Your task to perform on an android device: open device folders in google photos Image 0: 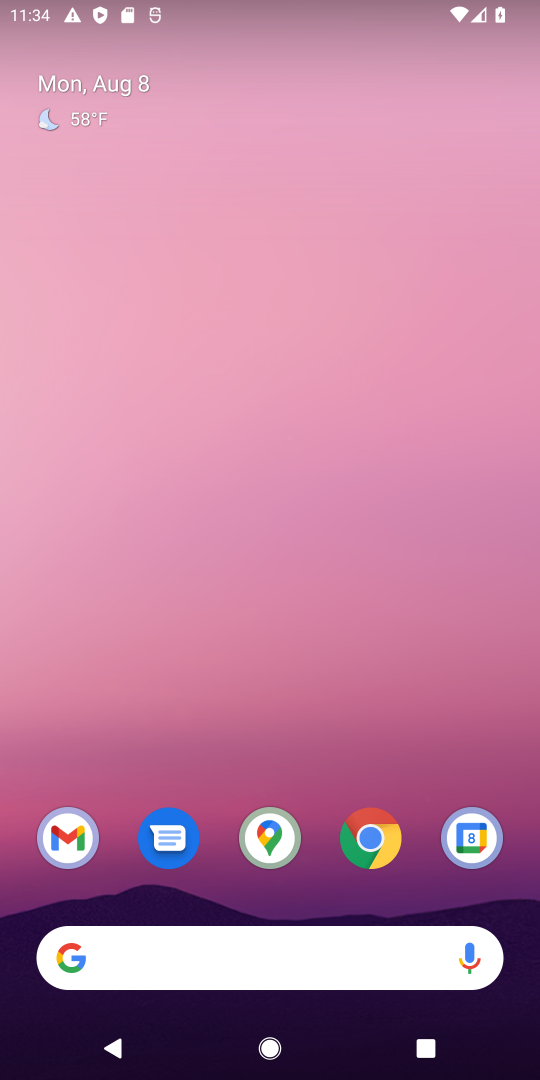
Step 0: press home button
Your task to perform on an android device: open device folders in google photos Image 1: 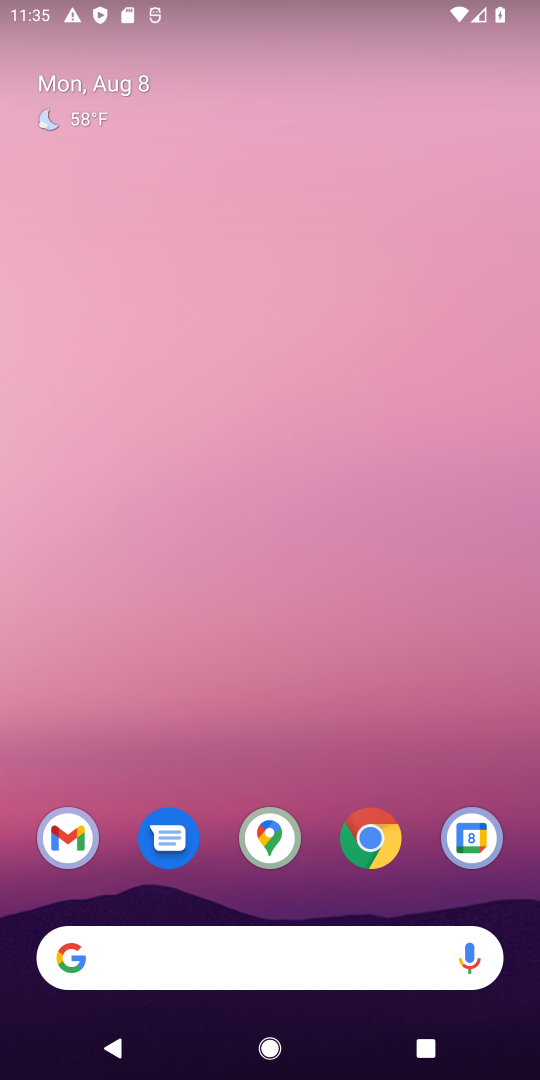
Step 1: drag from (204, 911) to (229, 168)
Your task to perform on an android device: open device folders in google photos Image 2: 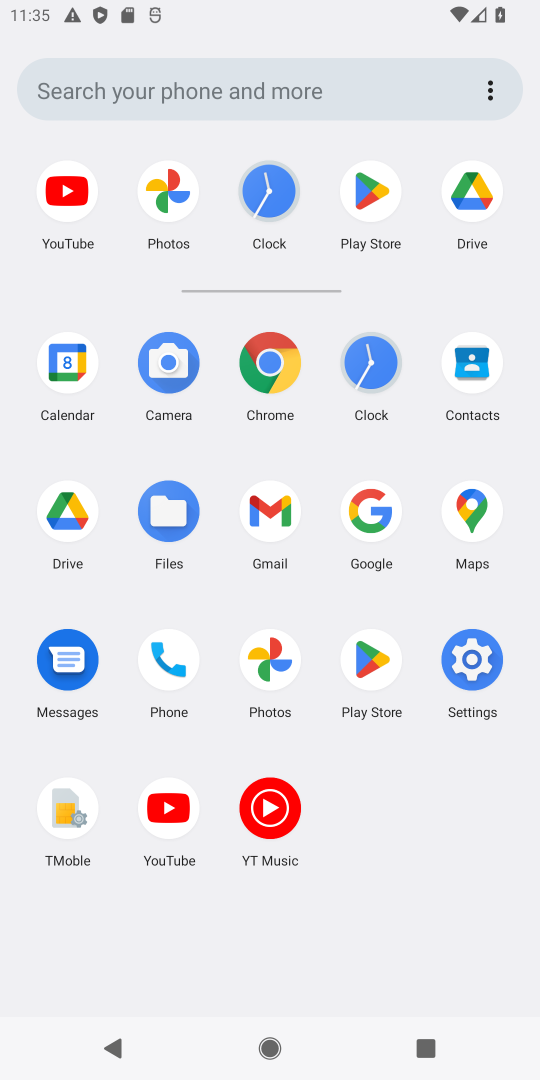
Step 2: click (167, 191)
Your task to perform on an android device: open device folders in google photos Image 3: 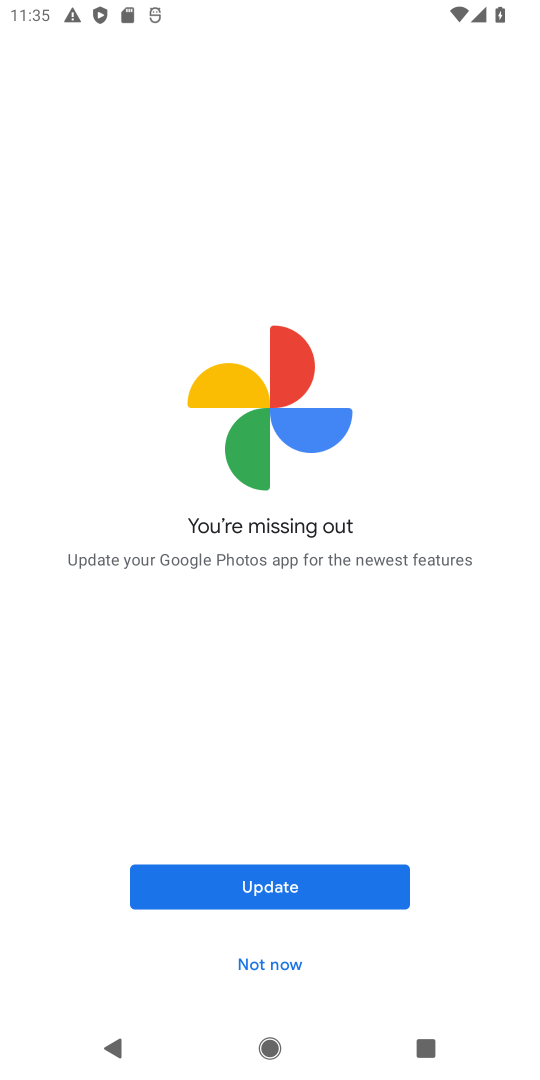
Step 3: click (202, 899)
Your task to perform on an android device: open device folders in google photos Image 4: 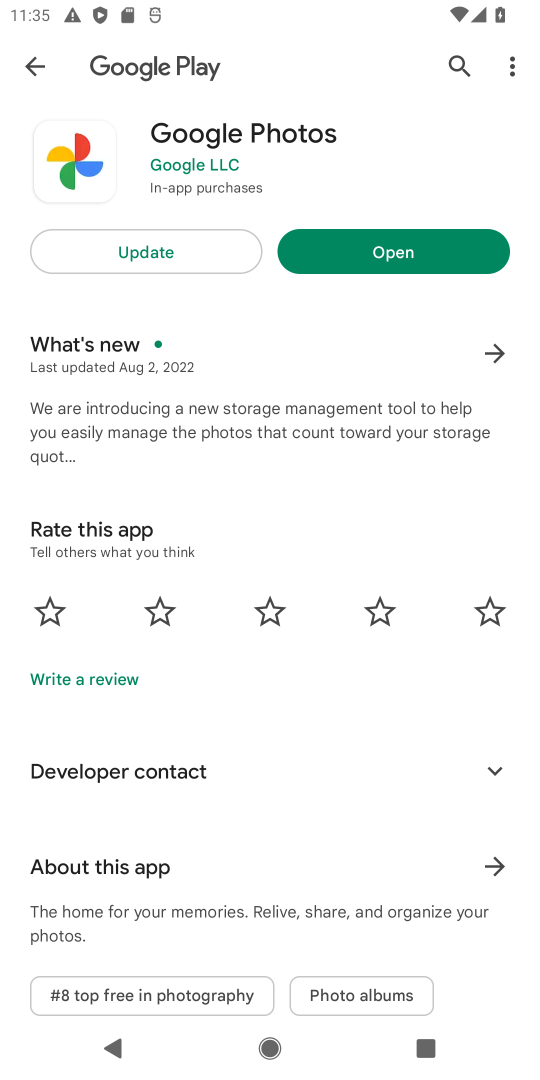
Step 4: click (181, 249)
Your task to perform on an android device: open device folders in google photos Image 5: 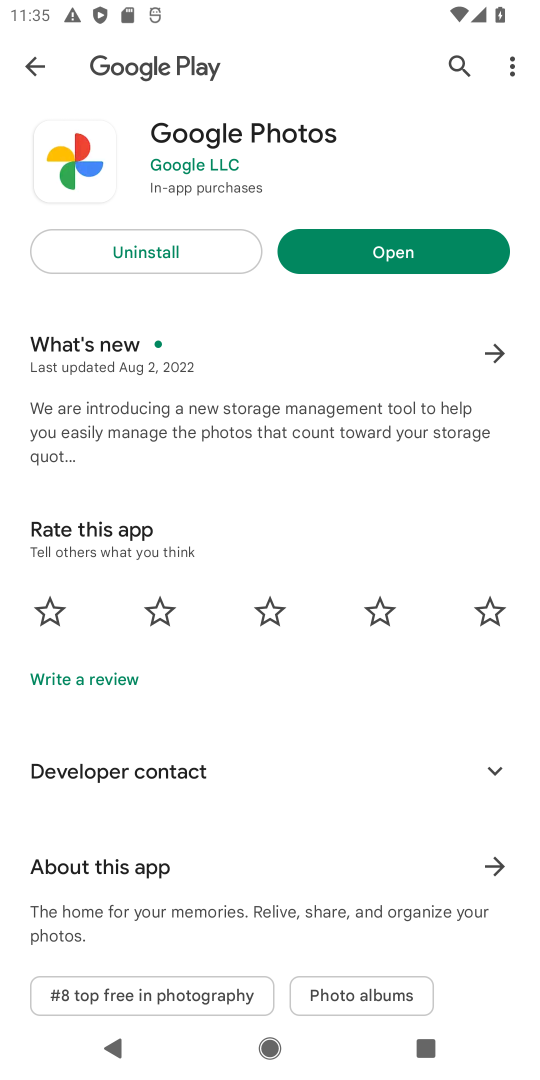
Step 5: click (315, 257)
Your task to perform on an android device: open device folders in google photos Image 6: 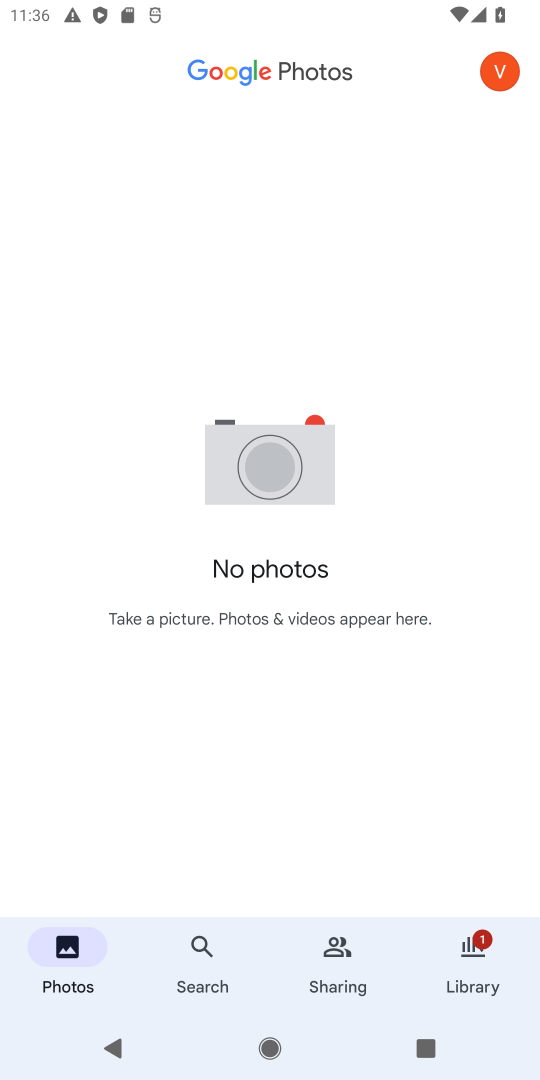
Step 6: click (189, 948)
Your task to perform on an android device: open device folders in google photos Image 7: 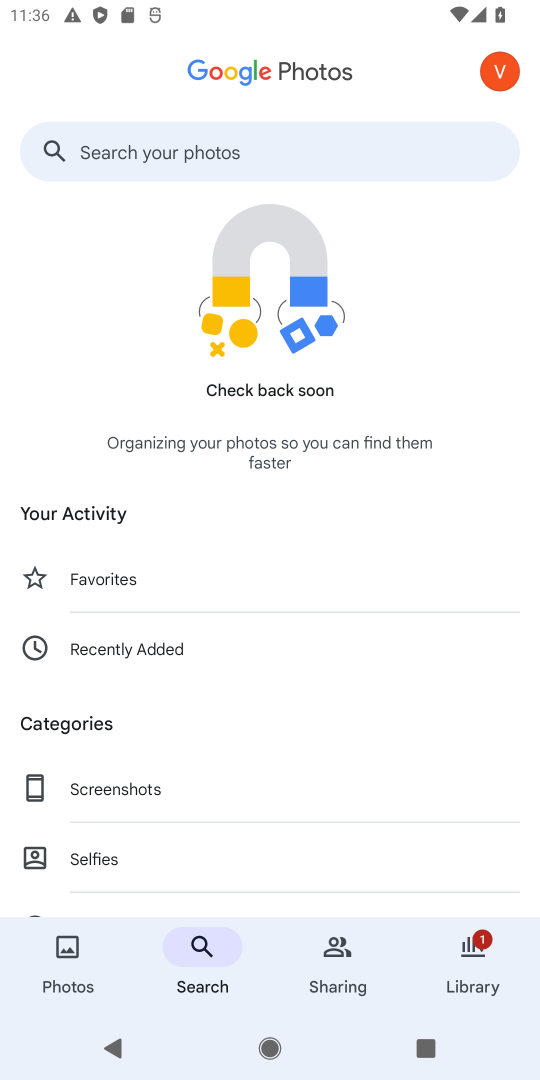
Step 7: click (174, 148)
Your task to perform on an android device: open device folders in google photos Image 8: 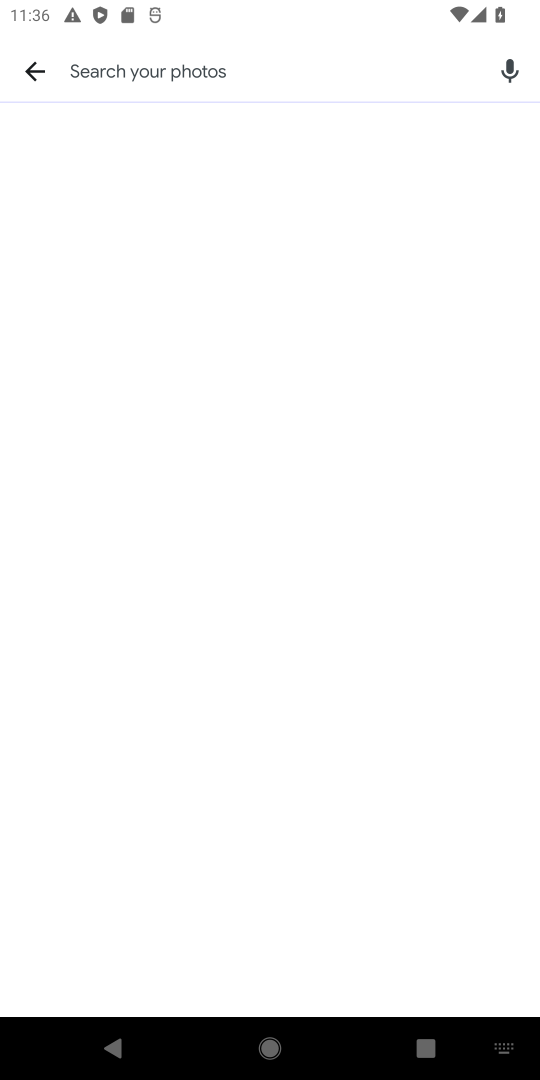
Step 8: type "device folders"
Your task to perform on an android device: open device folders in google photos Image 9: 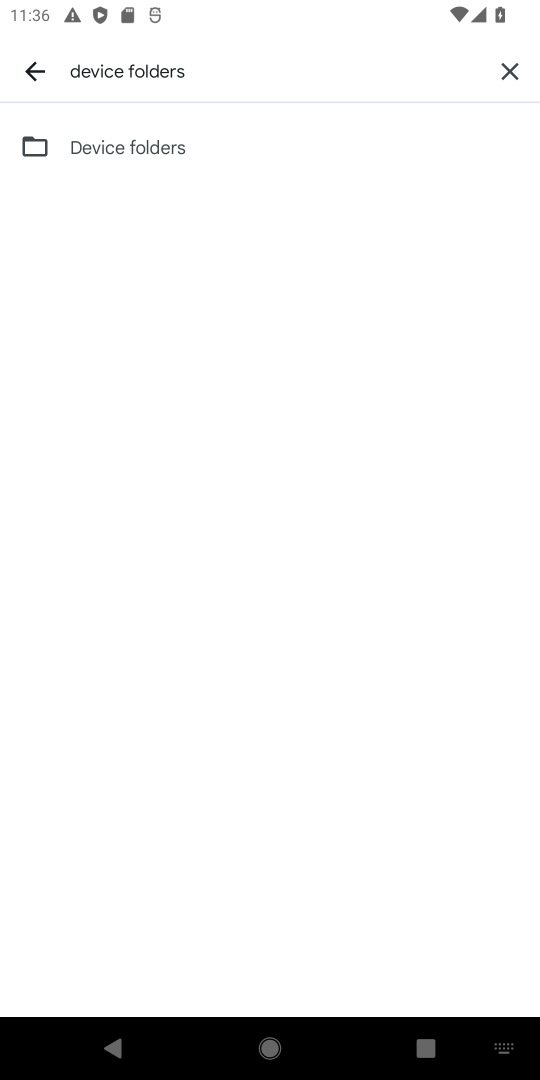
Step 9: press enter
Your task to perform on an android device: open device folders in google photos Image 10: 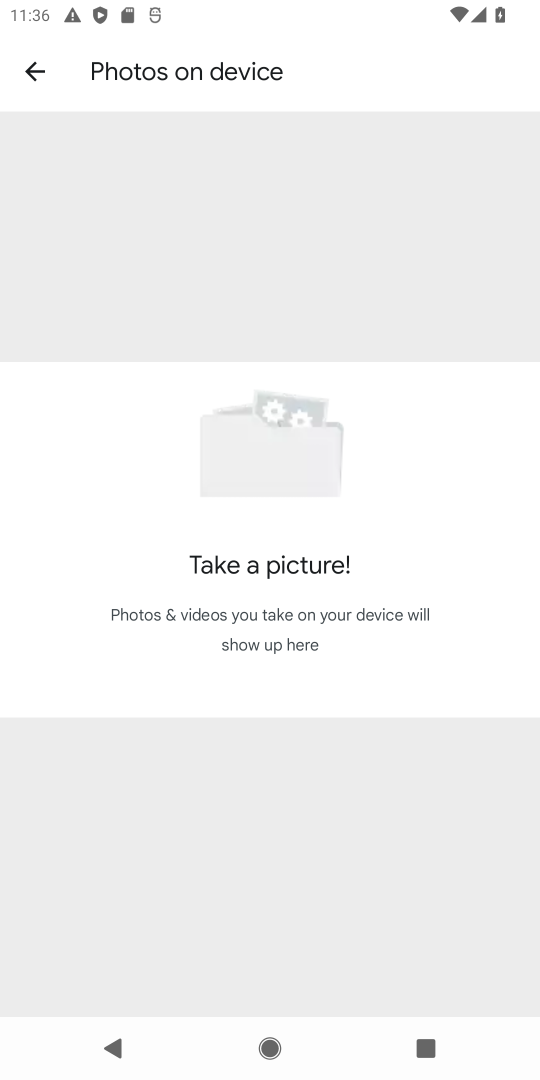
Step 10: task complete